Your task to perform on an android device: change timer sound Image 0: 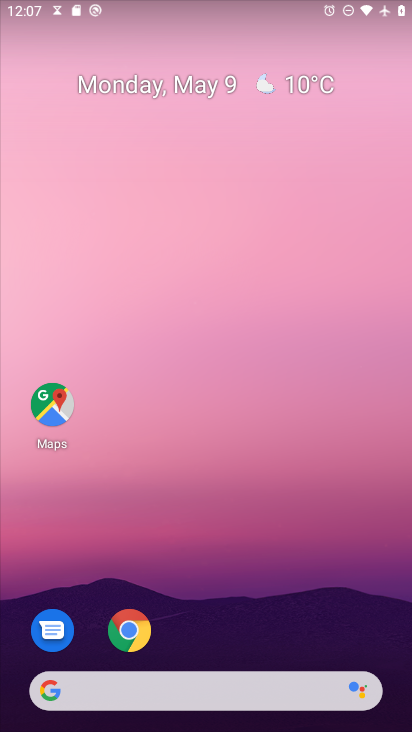
Step 0: drag from (170, 676) to (329, 71)
Your task to perform on an android device: change timer sound Image 1: 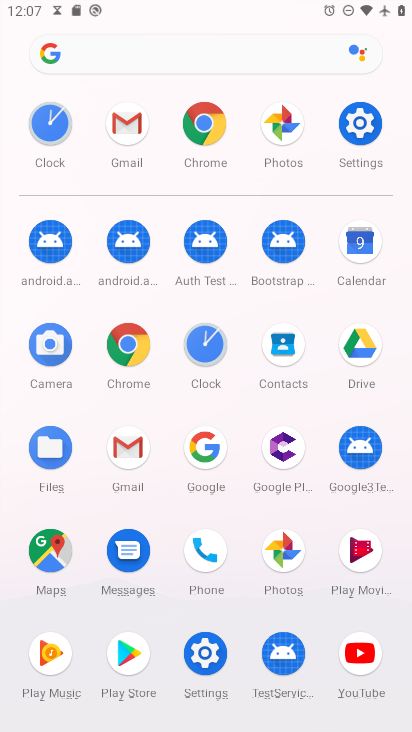
Step 1: click (207, 344)
Your task to perform on an android device: change timer sound Image 2: 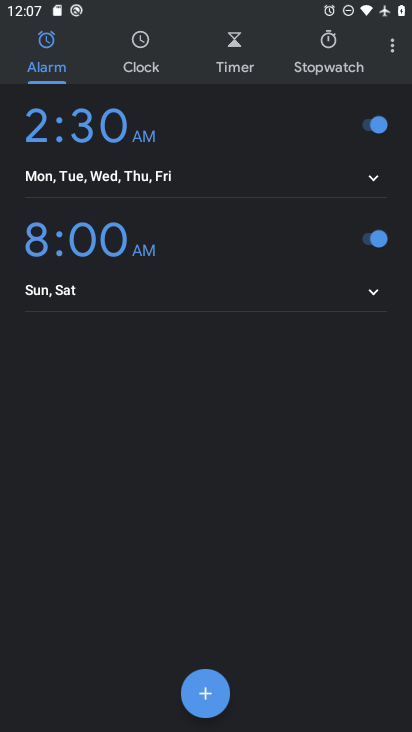
Step 2: click (389, 47)
Your task to perform on an android device: change timer sound Image 3: 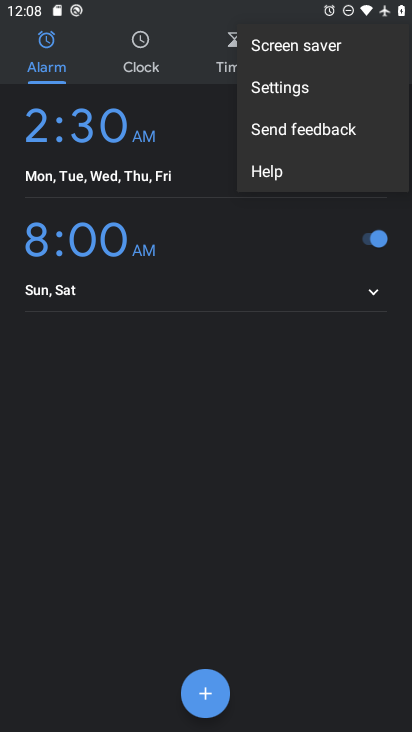
Step 3: click (298, 85)
Your task to perform on an android device: change timer sound Image 4: 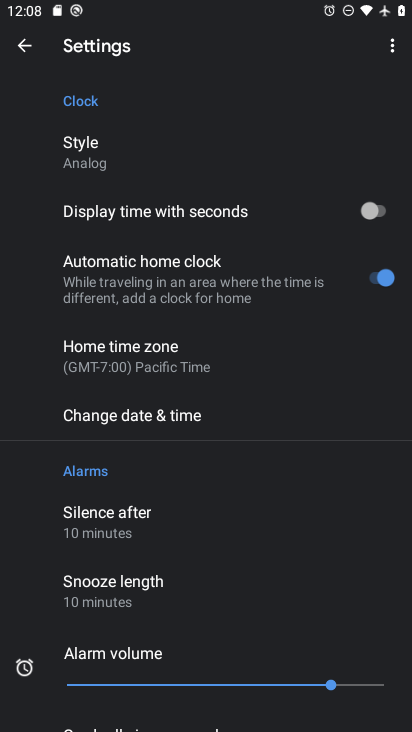
Step 4: drag from (157, 614) to (286, 219)
Your task to perform on an android device: change timer sound Image 5: 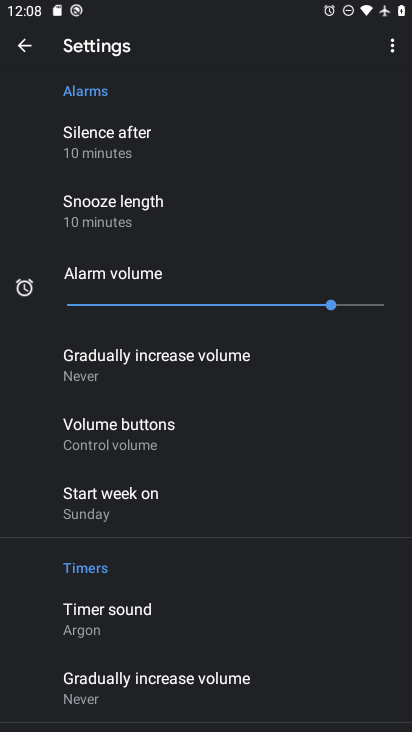
Step 5: click (128, 610)
Your task to perform on an android device: change timer sound Image 6: 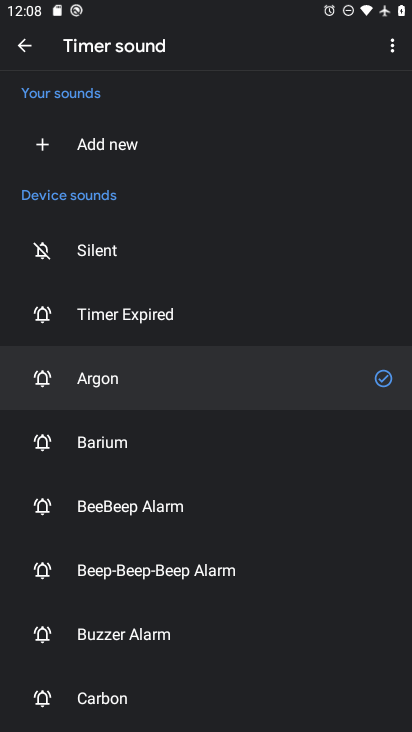
Step 6: click (117, 314)
Your task to perform on an android device: change timer sound Image 7: 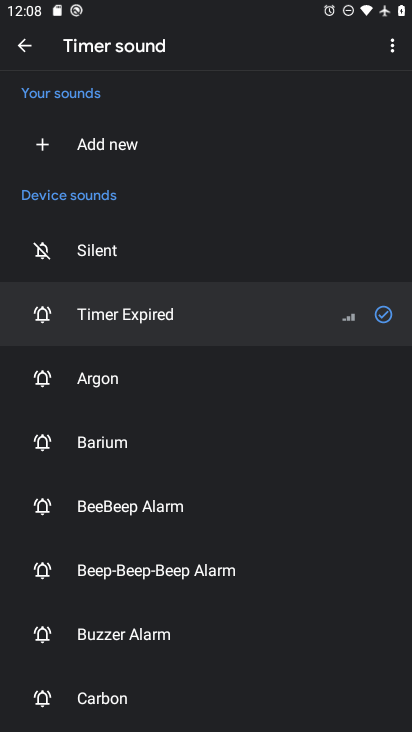
Step 7: task complete